Your task to perform on an android device: turn smart compose on in the gmail app Image 0: 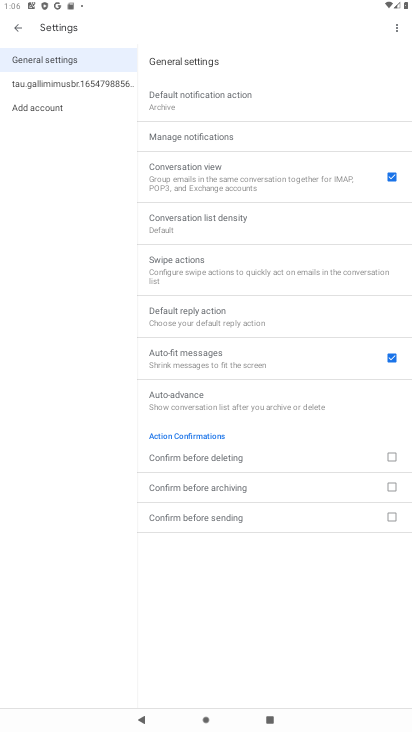
Step 0: press home button
Your task to perform on an android device: turn smart compose on in the gmail app Image 1: 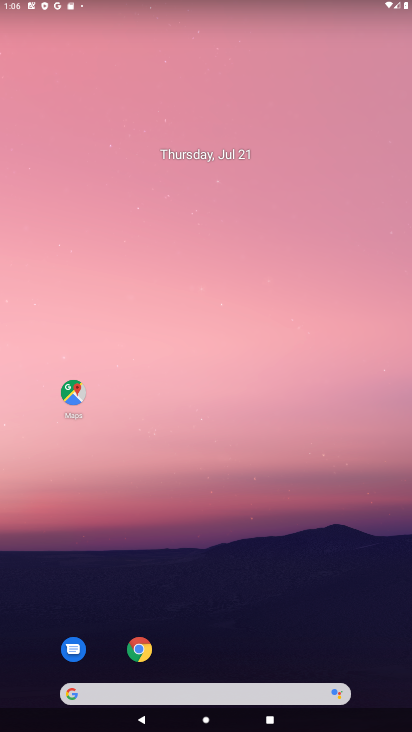
Step 1: drag from (271, 545) to (268, 74)
Your task to perform on an android device: turn smart compose on in the gmail app Image 2: 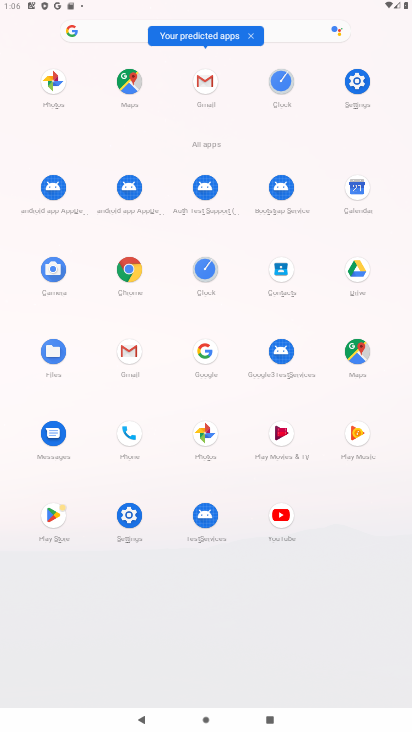
Step 2: click (215, 90)
Your task to perform on an android device: turn smart compose on in the gmail app Image 3: 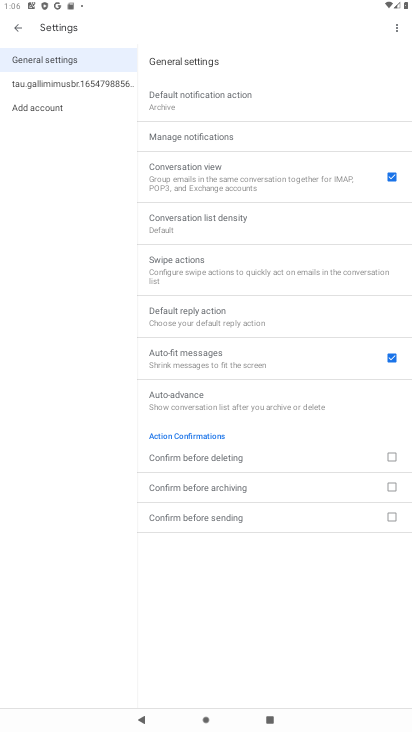
Step 3: click (103, 82)
Your task to perform on an android device: turn smart compose on in the gmail app Image 4: 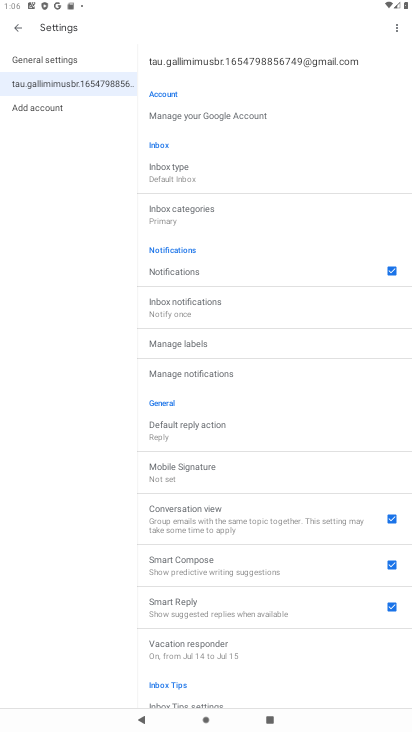
Step 4: task complete